Your task to perform on an android device: turn off improve location accuracy Image 0: 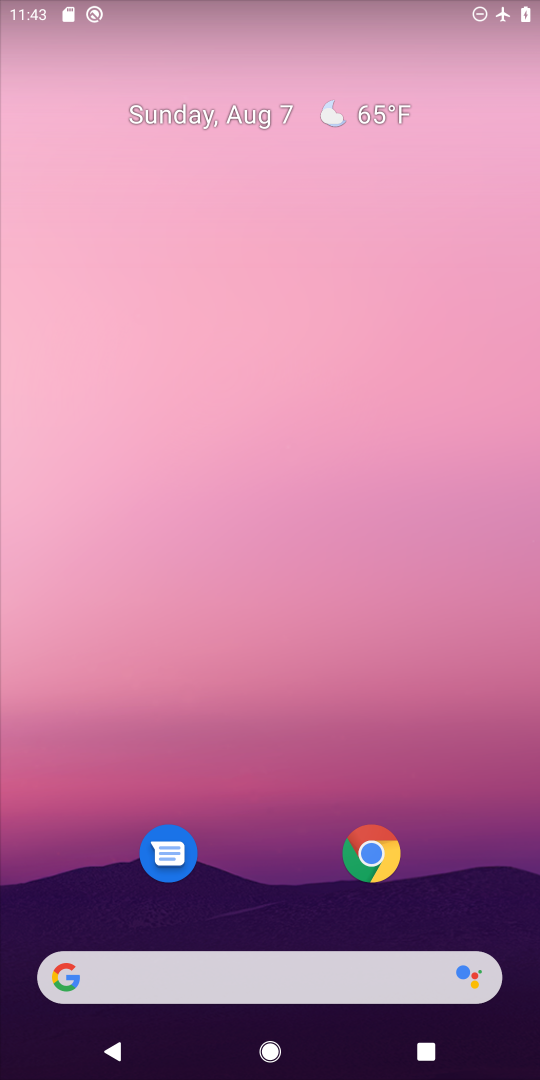
Step 0: drag from (165, 853) to (158, 125)
Your task to perform on an android device: turn off improve location accuracy Image 1: 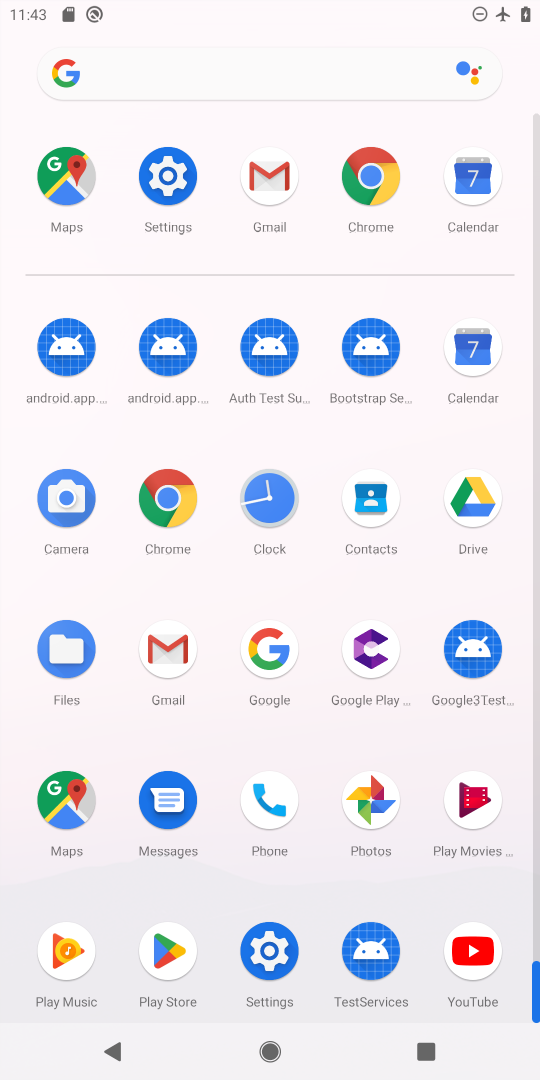
Step 1: click (166, 163)
Your task to perform on an android device: turn off improve location accuracy Image 2: 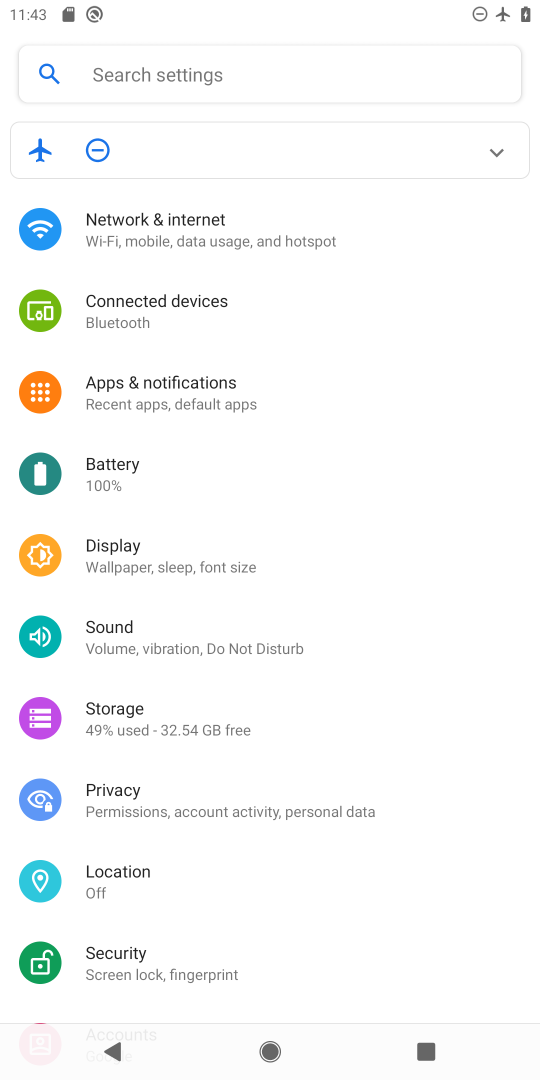
Step 2: click (187, 863)
Your task to perform on an android device: turn off improve location accuracy Image 3: 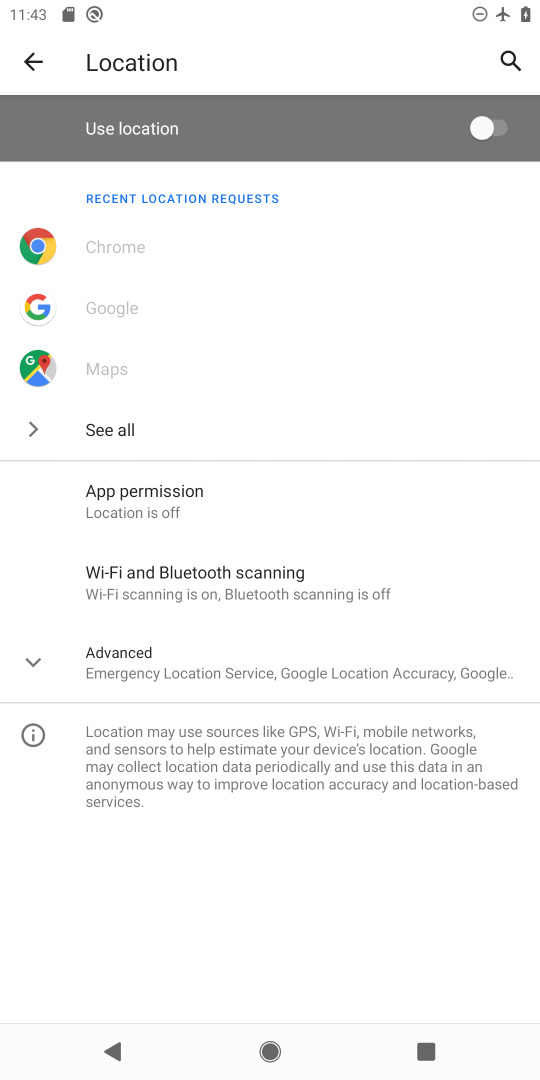
Step 3: click (219, 659)
Your task to perform on an android device: turn off improve location accuracy Image 4: 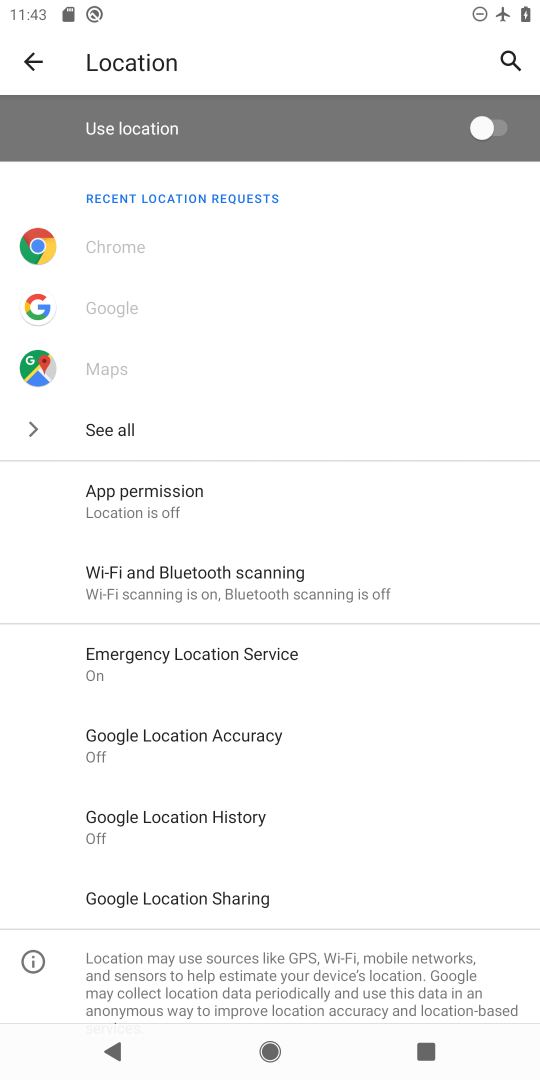
Step 4: click (228, 828)
Your task to perform on an android device: turn off improve location accuracy Image 5: 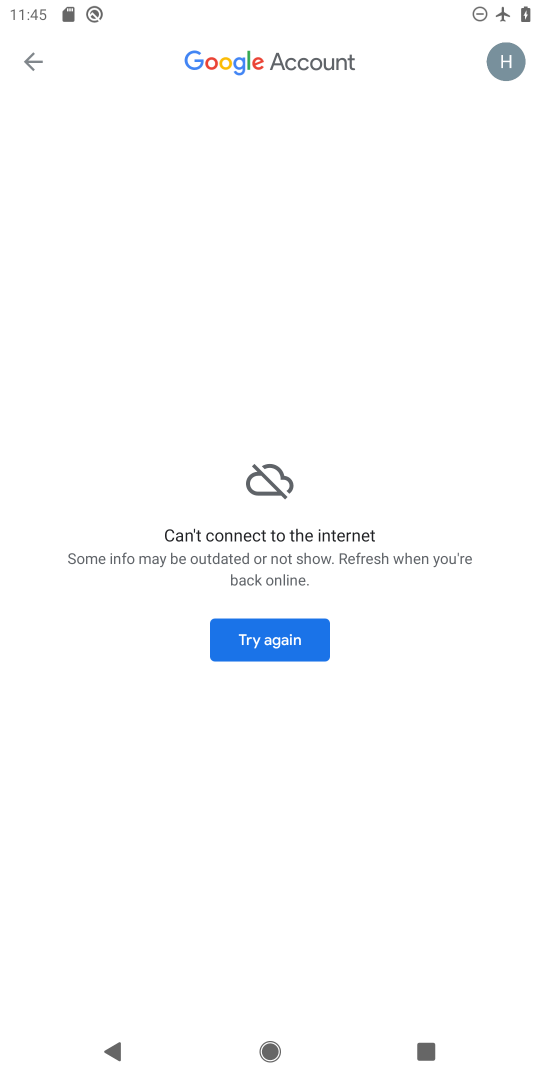
Step 5: task complete